Your task to perform on an android device: Open Google Maps and go to "Timeline" Image 0: 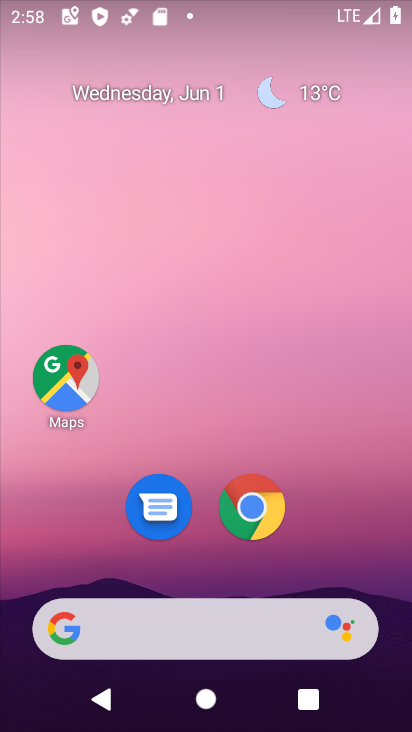
Step 0: click (81, 389)
Your task to perform on an android device: Open Google Maps and go to "Timeline" Image 1: 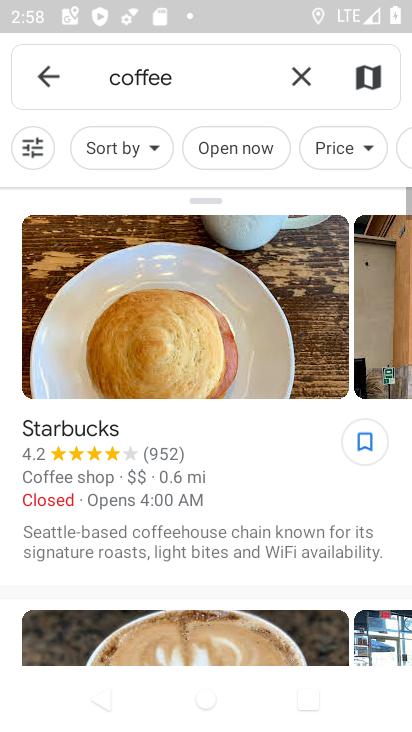
Step 1: click (50, 80)
Your task to perform on an android device: Open Google Maps and go to "Timeline" Image 2: 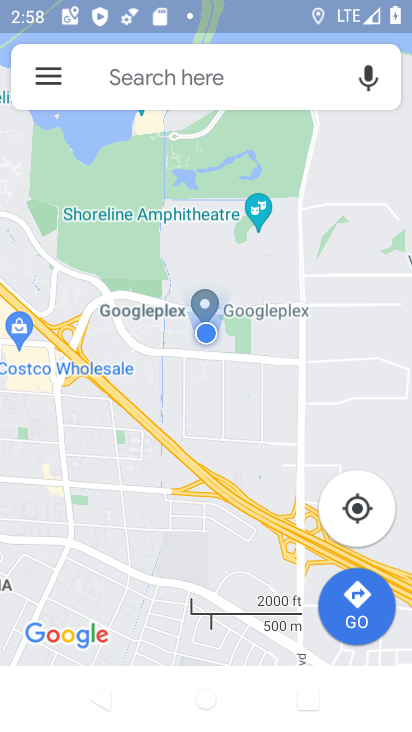
Step 2: click (50, 80)
Your task to perform on an android device: Open Google Maps and go to "Timeline" Image 3: 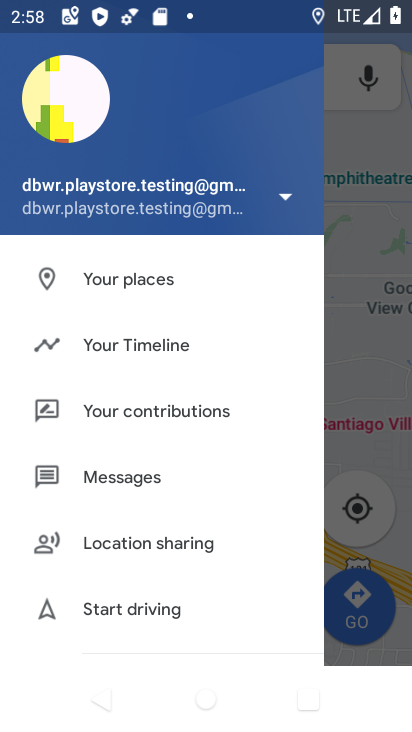
Step 3: click (98, 342)
Your task to perform on an android device: Open Google Maps and go to "Timeline" Image 4: 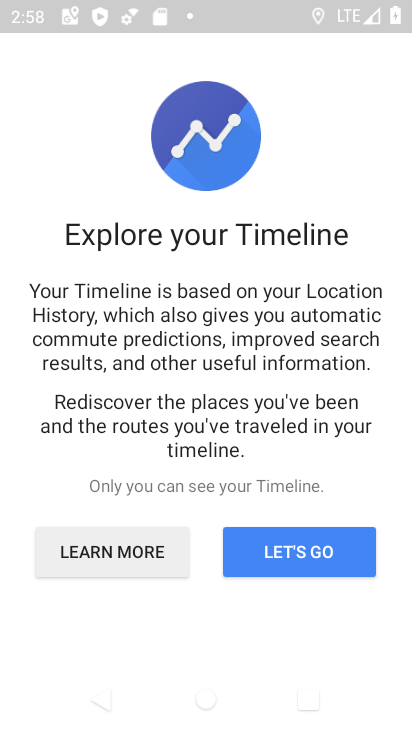
Step 4: task complete